Your task to perform on an android device: Play the last video I watched on Youtube Image 0: 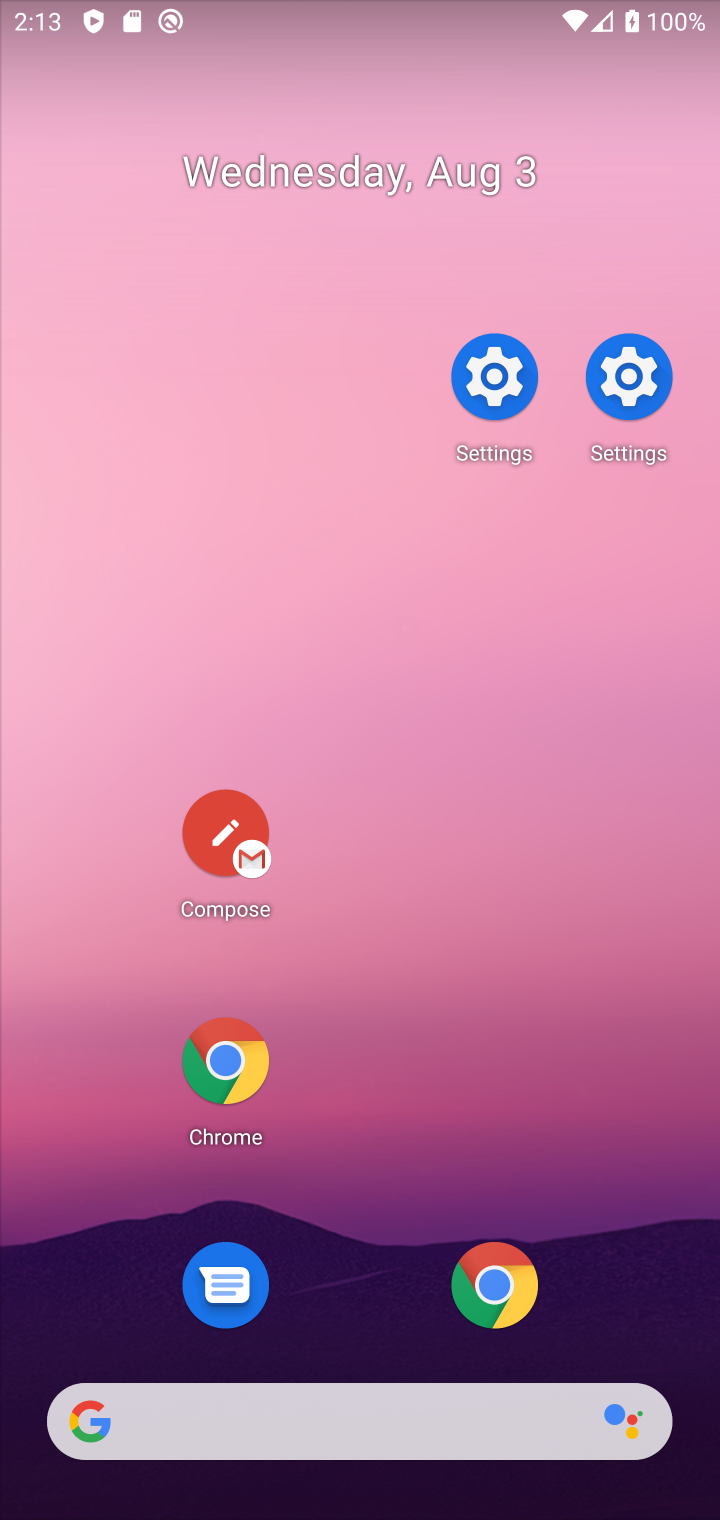
Step 0: drag from (203, 855) to (182, 146)
Your task to perform on an android device: Play the last video I watched on Youtube Image 1: 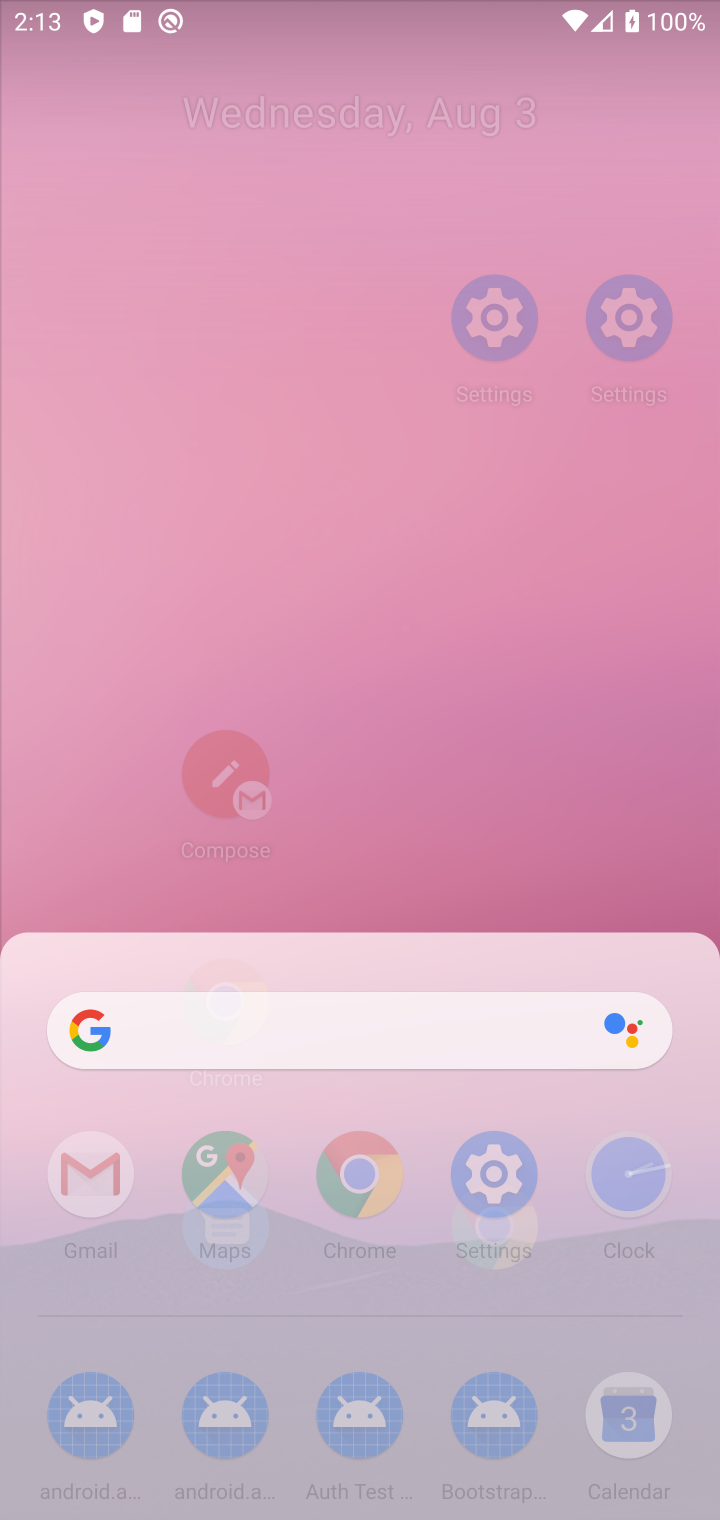
Step 1: click (247, 238)
Your task to perform on an android device: Play the last video I watched on Youtube Image 2: 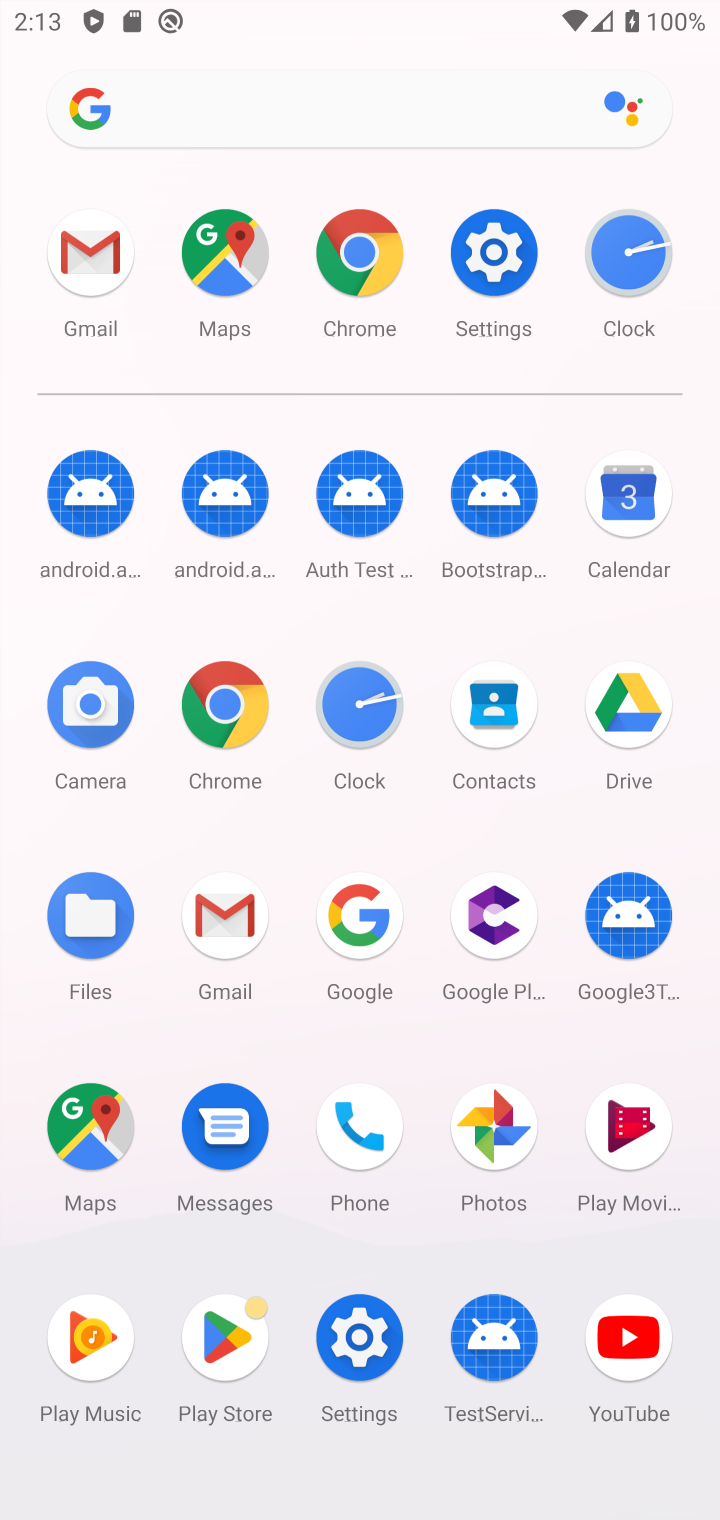
Step 2: drag from (361, 595) to (370, 147)
Your task to perform on an android device: Play the last video I watched on Youtube Image 3: 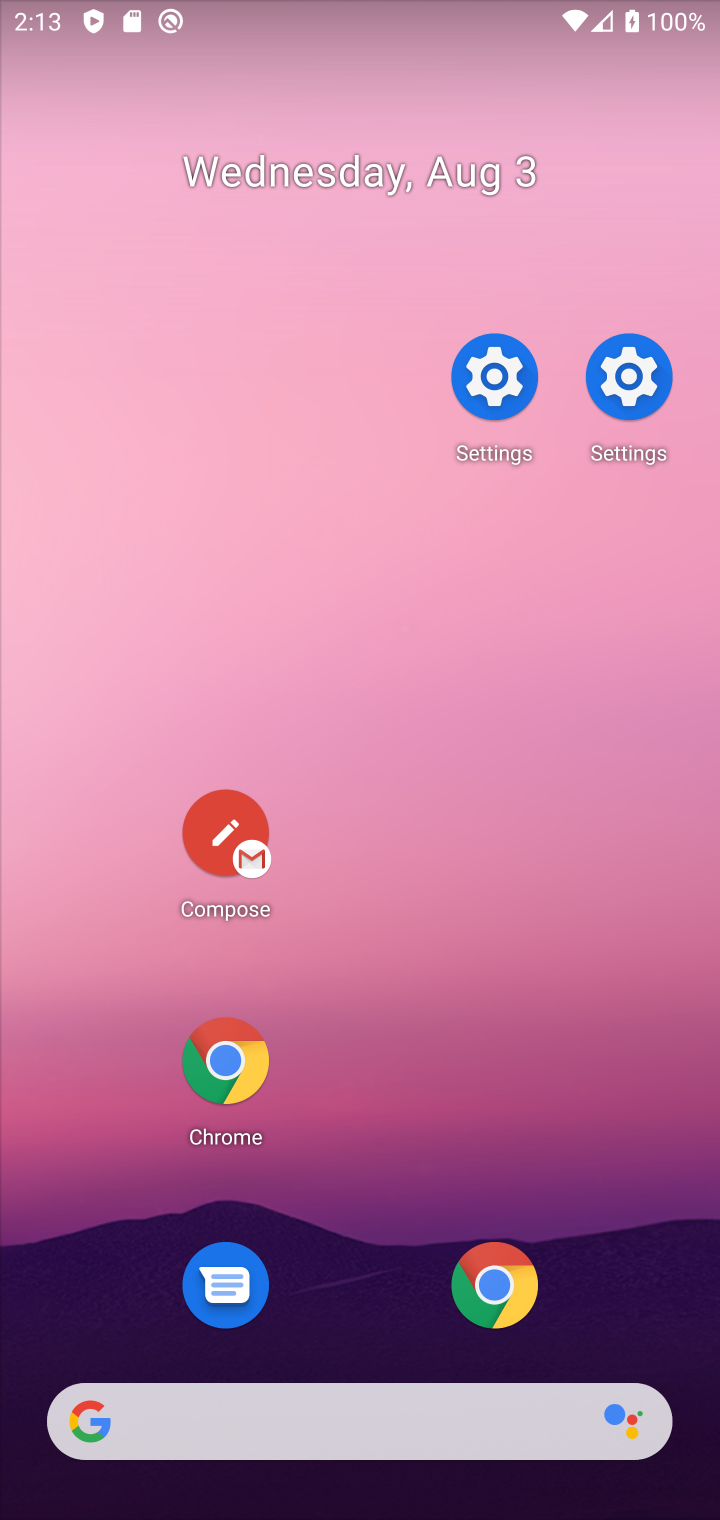
Step 3: drag from (487, 832) to (241, 523)
Your task to perform on an android device: Play the last video I watched on Youtube Image 4: 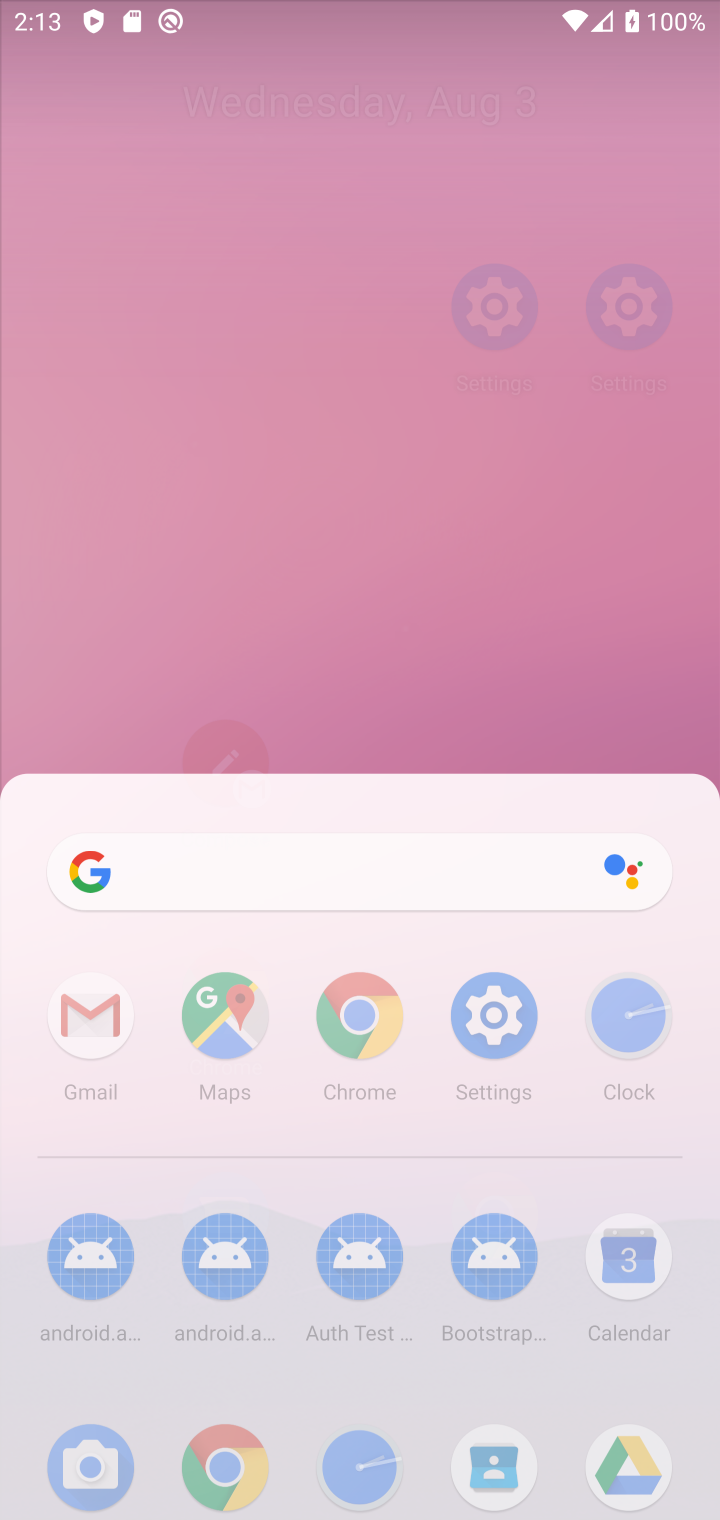
Step 4: drag from (338, 906) to (330, 304)
Your task to perform on an android device: Play the last video I watched on Youtube Image 5: 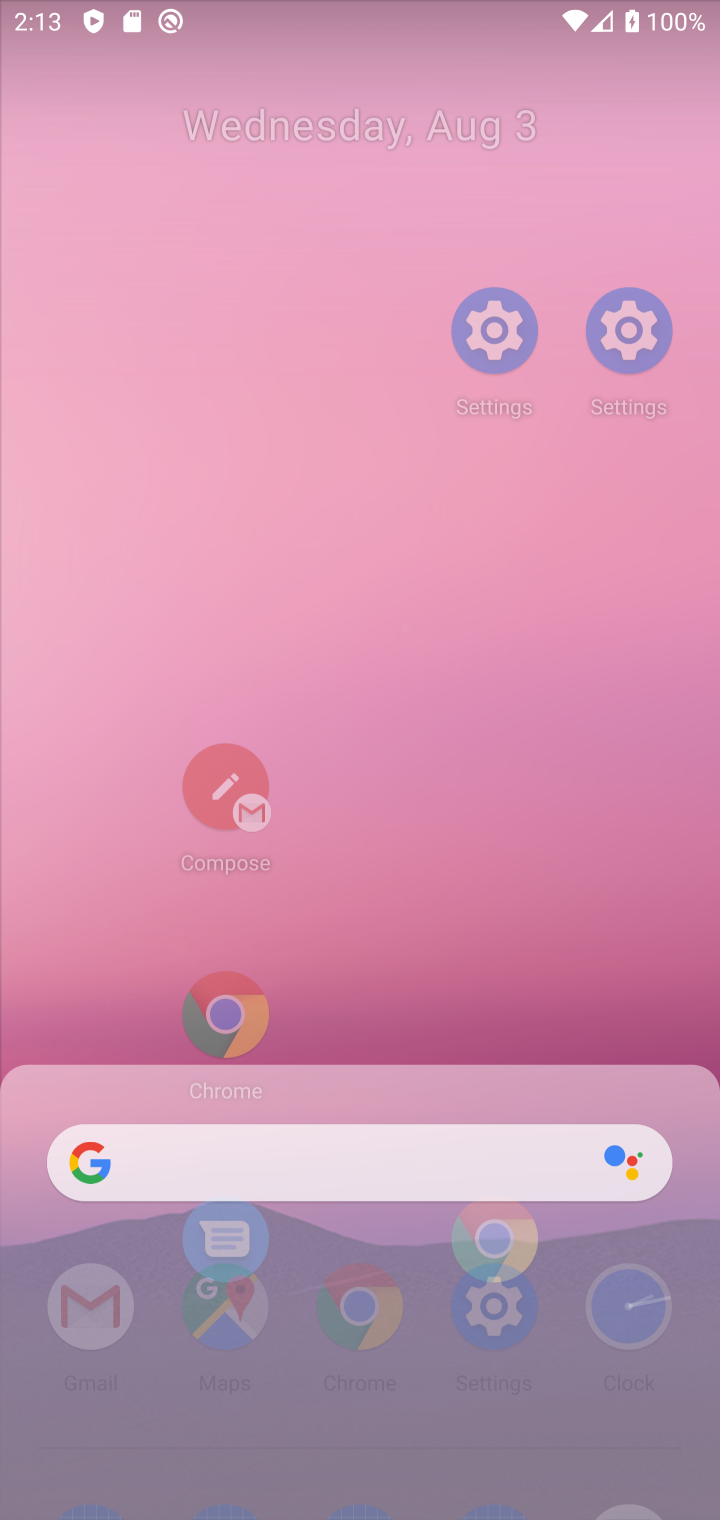
Step 5: click (81, 245)
Your task to perform on an android device: Play the last video I watched on Youtube Image 6: 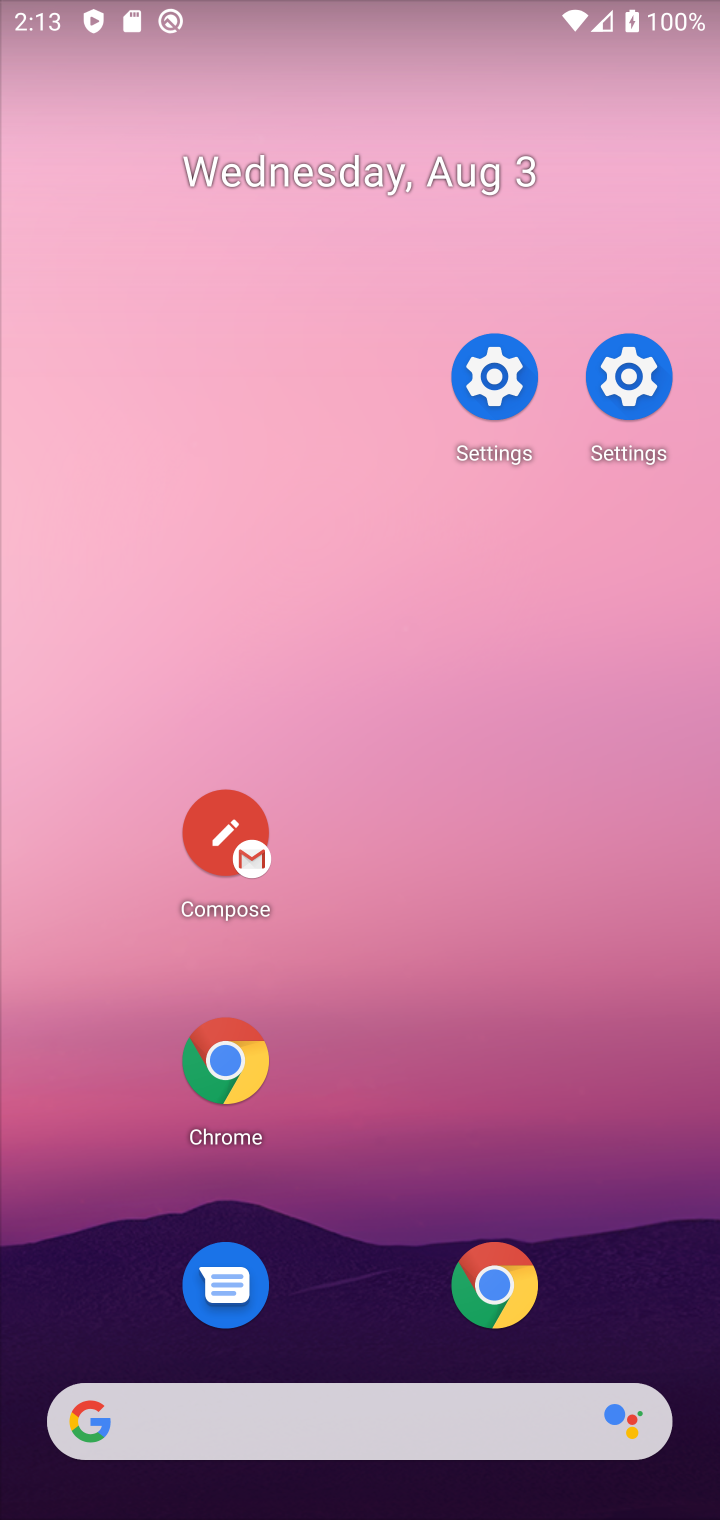
Step 6: drag from (230, 321) to (143, 252)
Your task to perform on an android device: Play the last video I watched on Youtube Image 7: 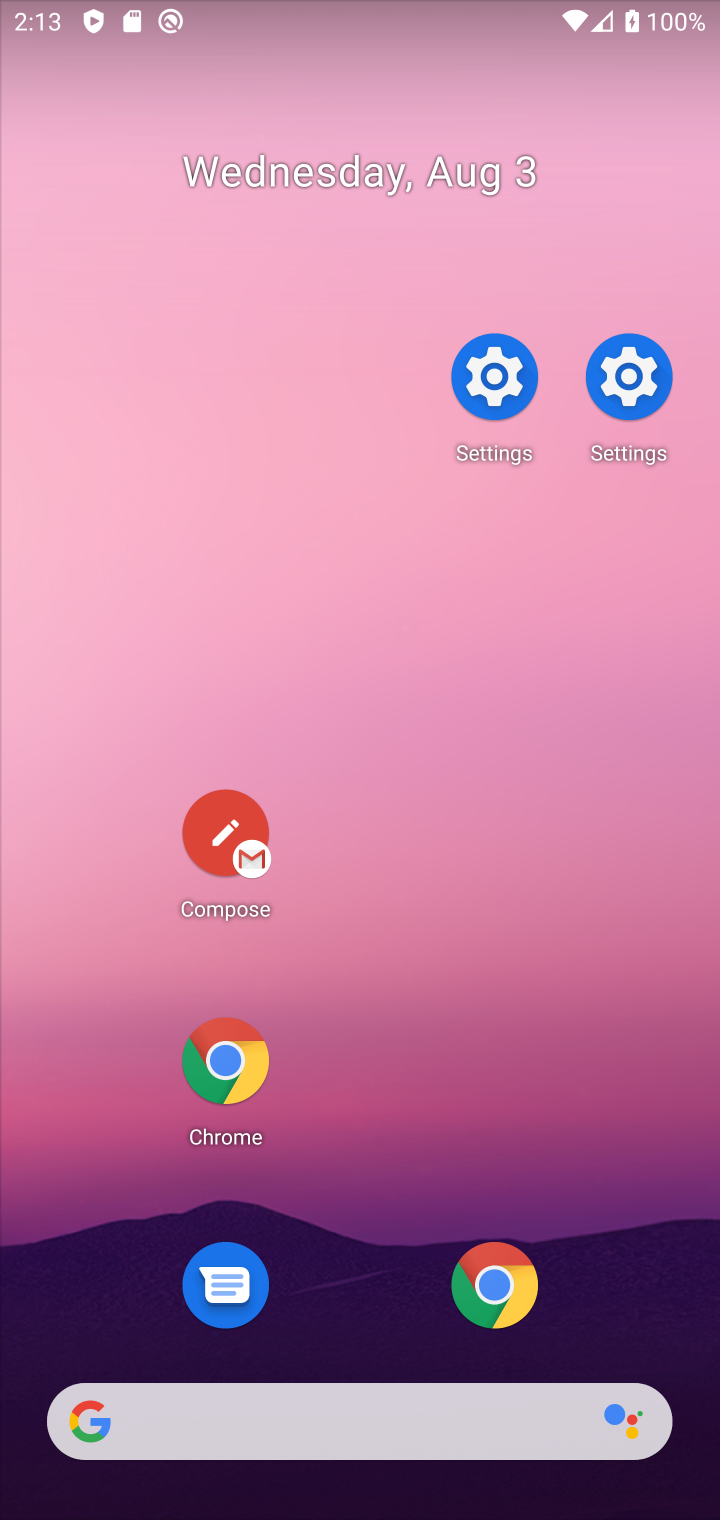
Step 7: drag from (424, 685) to (218, 365)
Your task to perform on an android device: Play the last video I watched on Youtube Image 8: 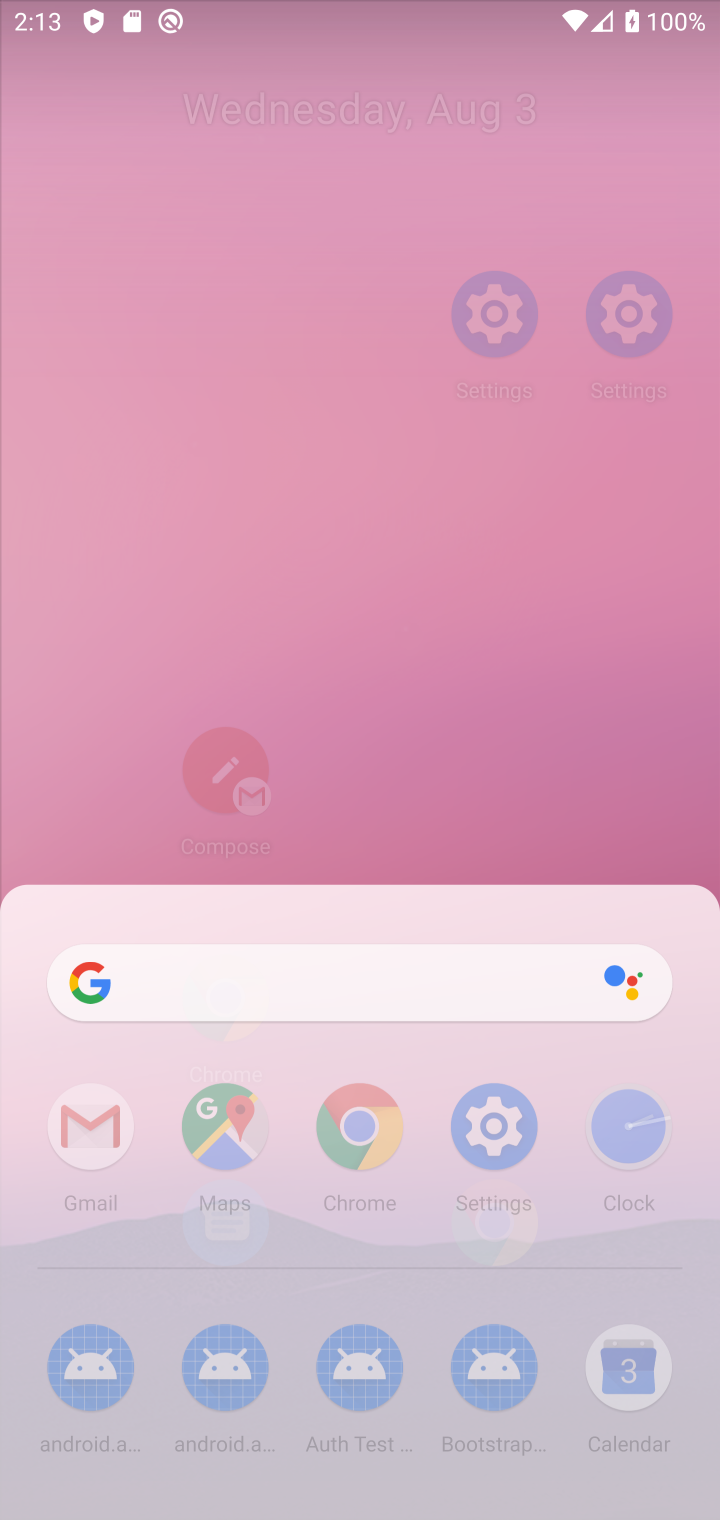
Step 8: click (139, 162)
Your task to perform on an android device: Play the last video I watched on Youtube Image 9: 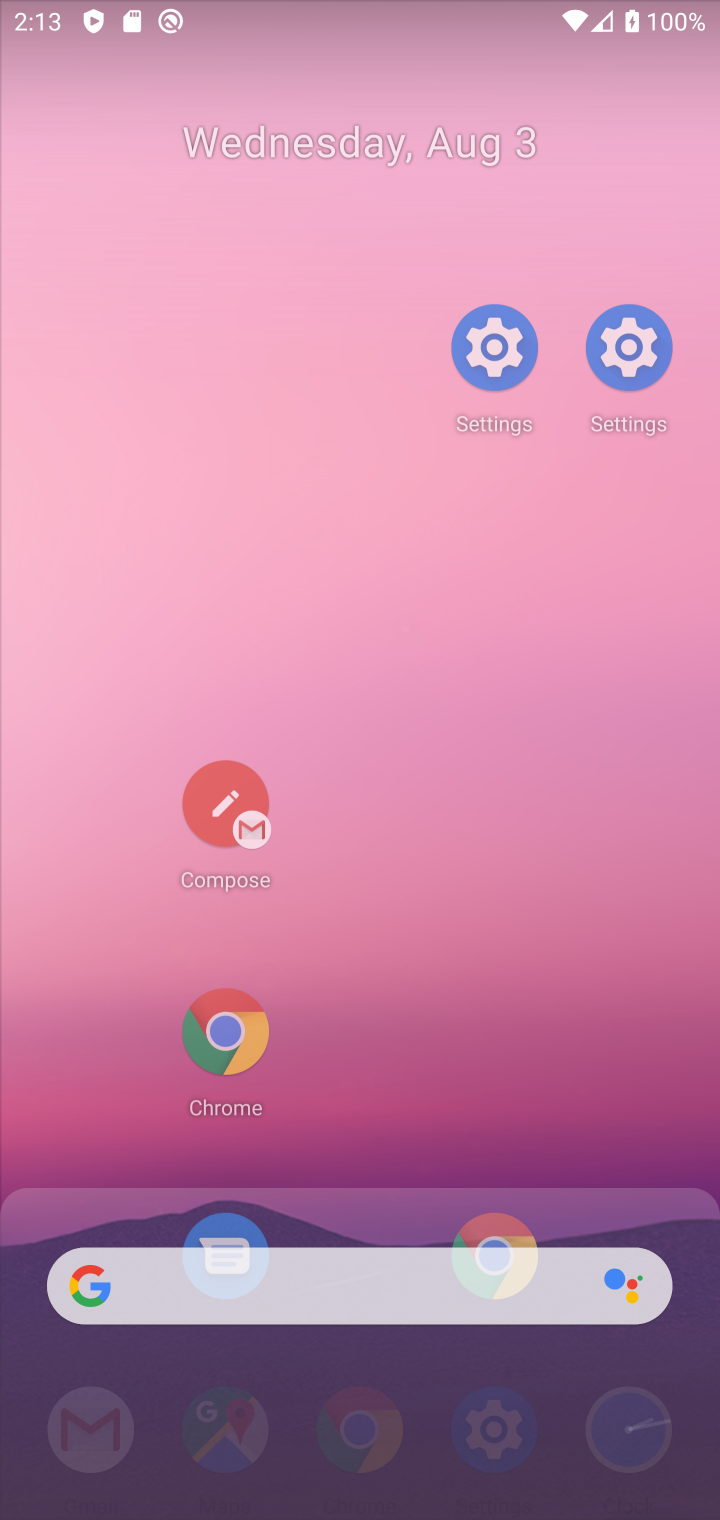
Step 9: click (127, 413)
Your task to perform on an android device: Play the last video I watched on Youtube Image 10: 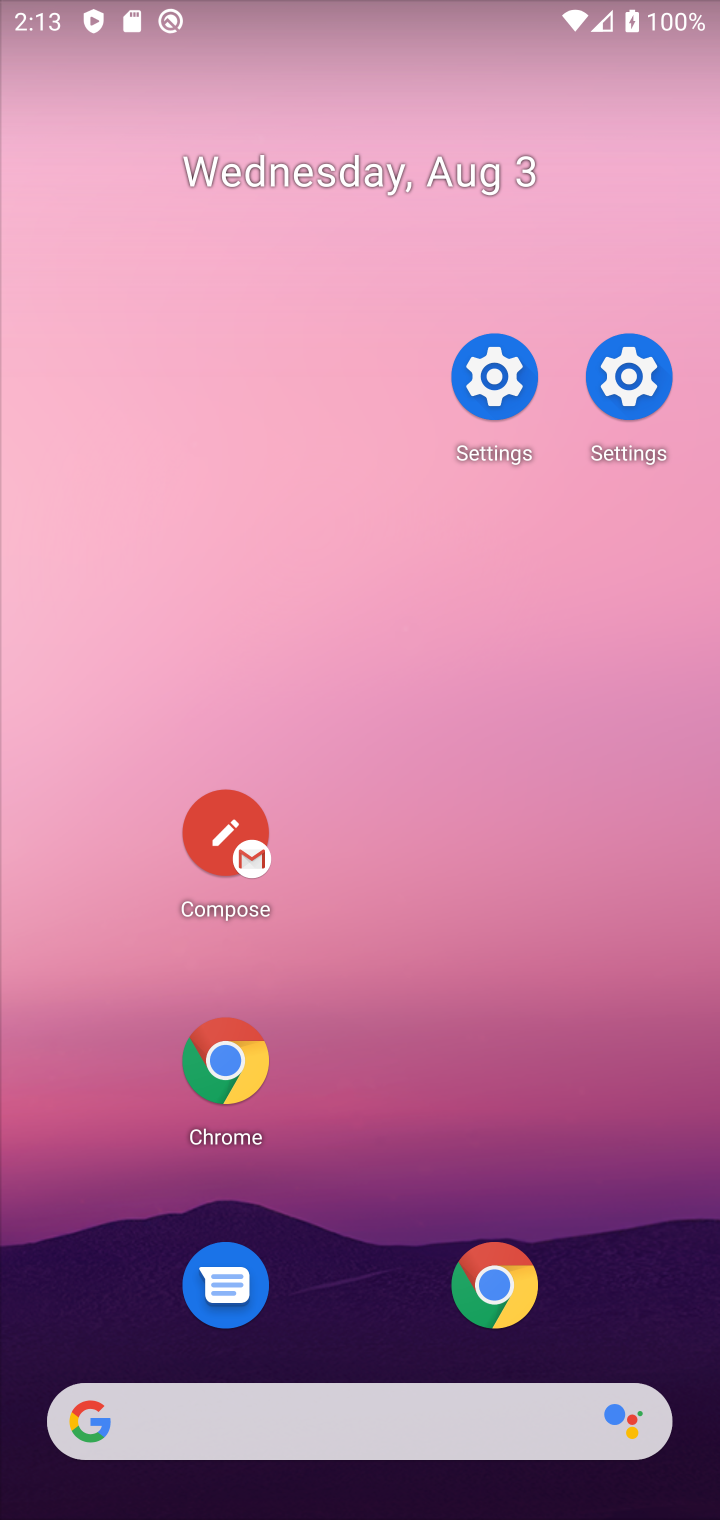
Step 10: drag from (386, 1070) to (247, 504)
Your task to perform on an android device: Play the last video I watched on Youtube Image 11: 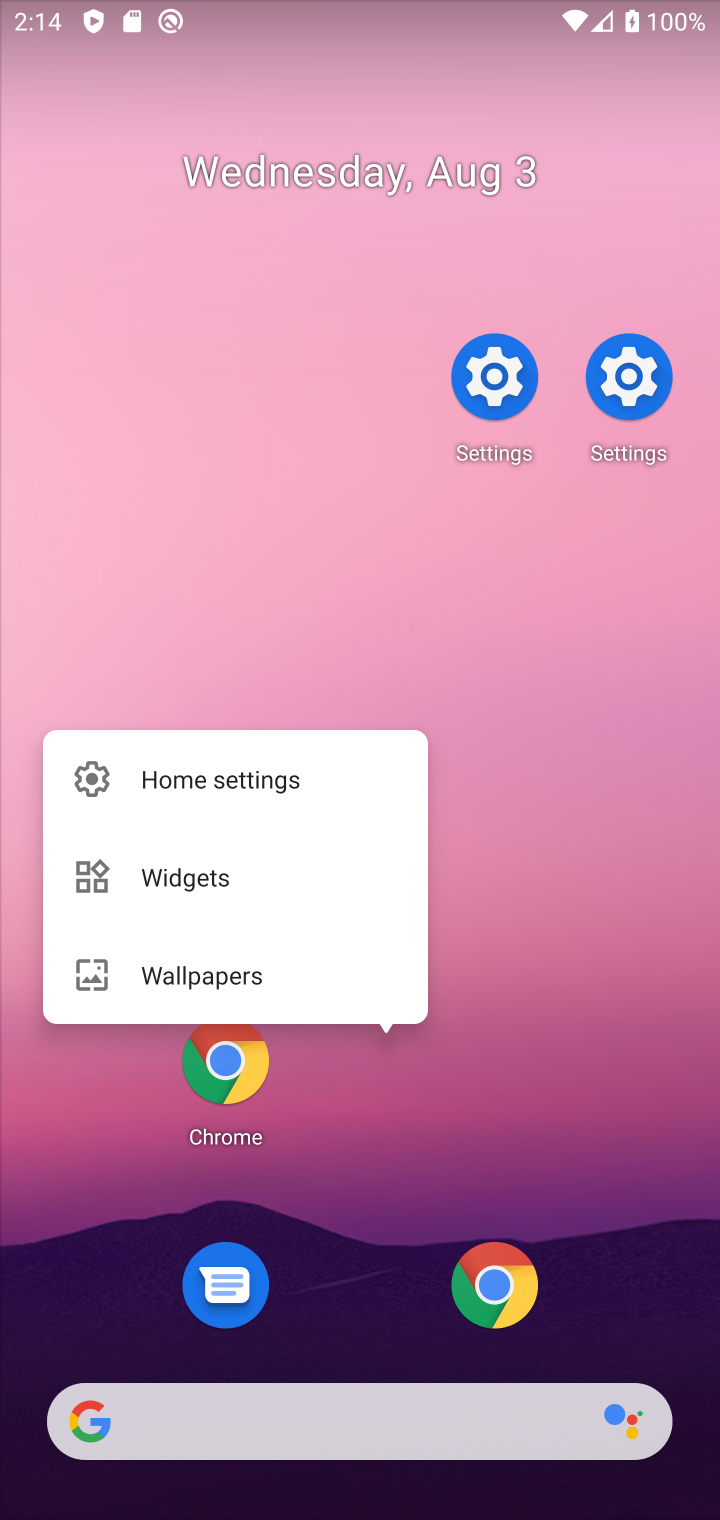
Step 11: drag from (388, 692) to (294, 3)
Your task to perform on an android device: Play the last video I watched on Youtube Image 12: 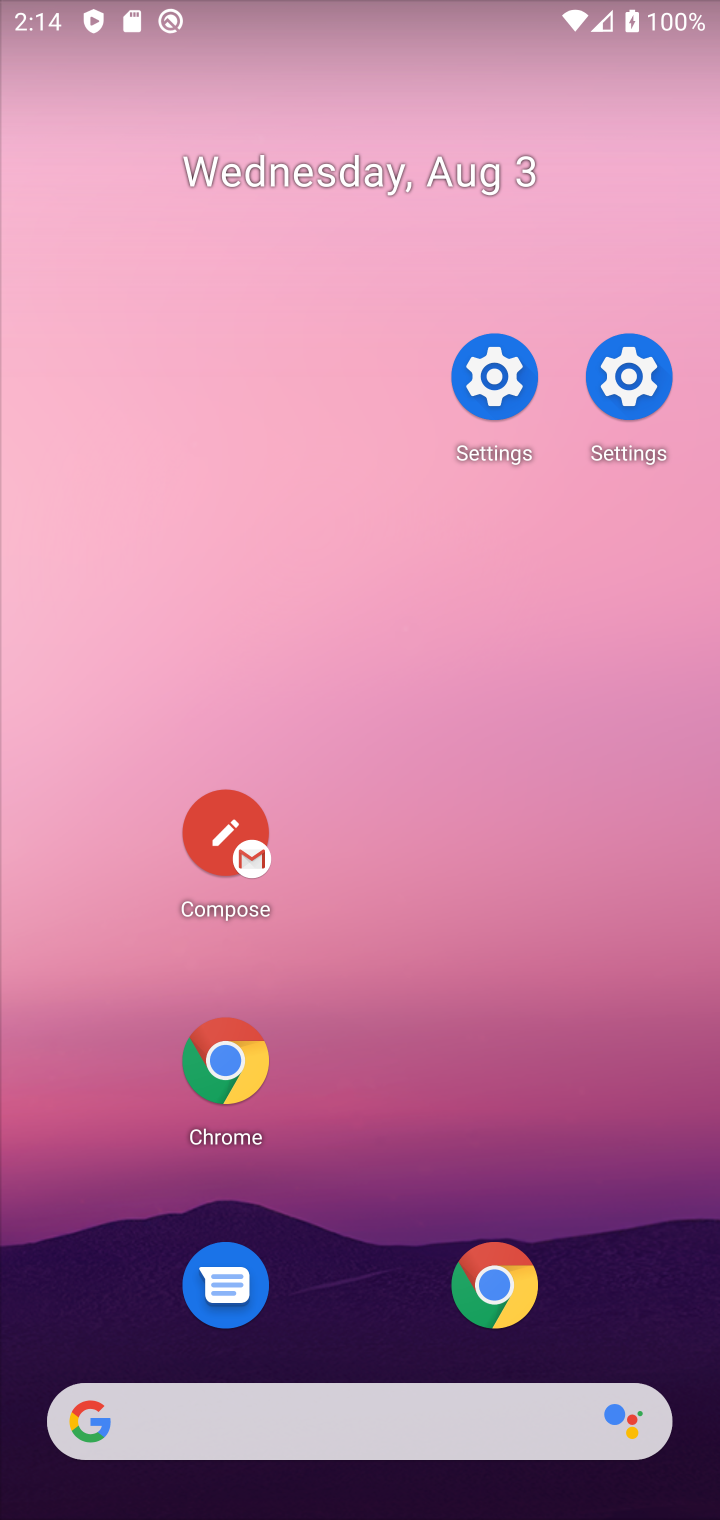
Step 12: drag from (39, 93) to (370, 94)
Your task to perform on an android device: Play the last video I watched on Youtube Image 13: 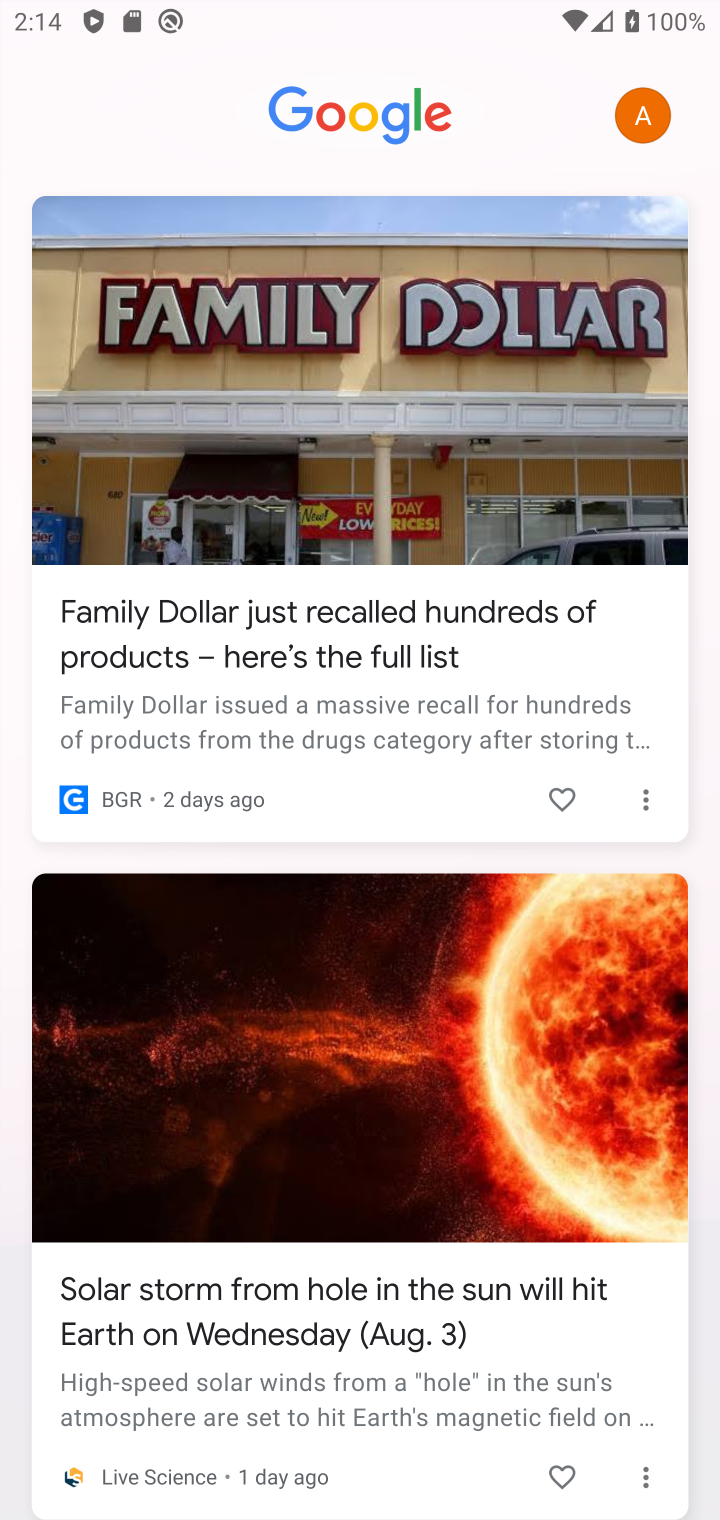
Step 13: drag from (207, 366) to (289, 385)
Your task to perform on an android device: Play the last video I watched on Youtube Image 14: 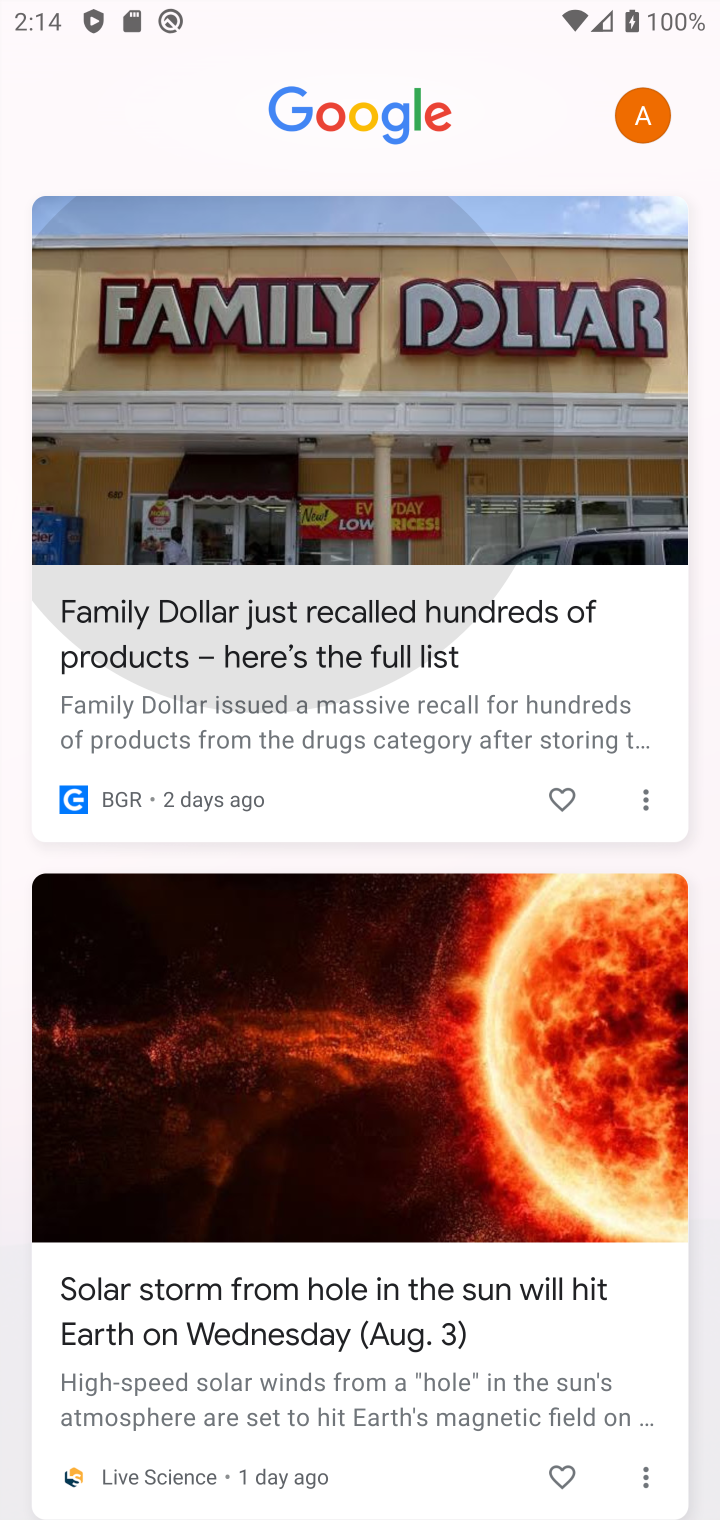
Step 14: drag from (163, 981) to (302, 954)
Your task to perform on an android device: Play the last video I watched on Youtube Image 15: 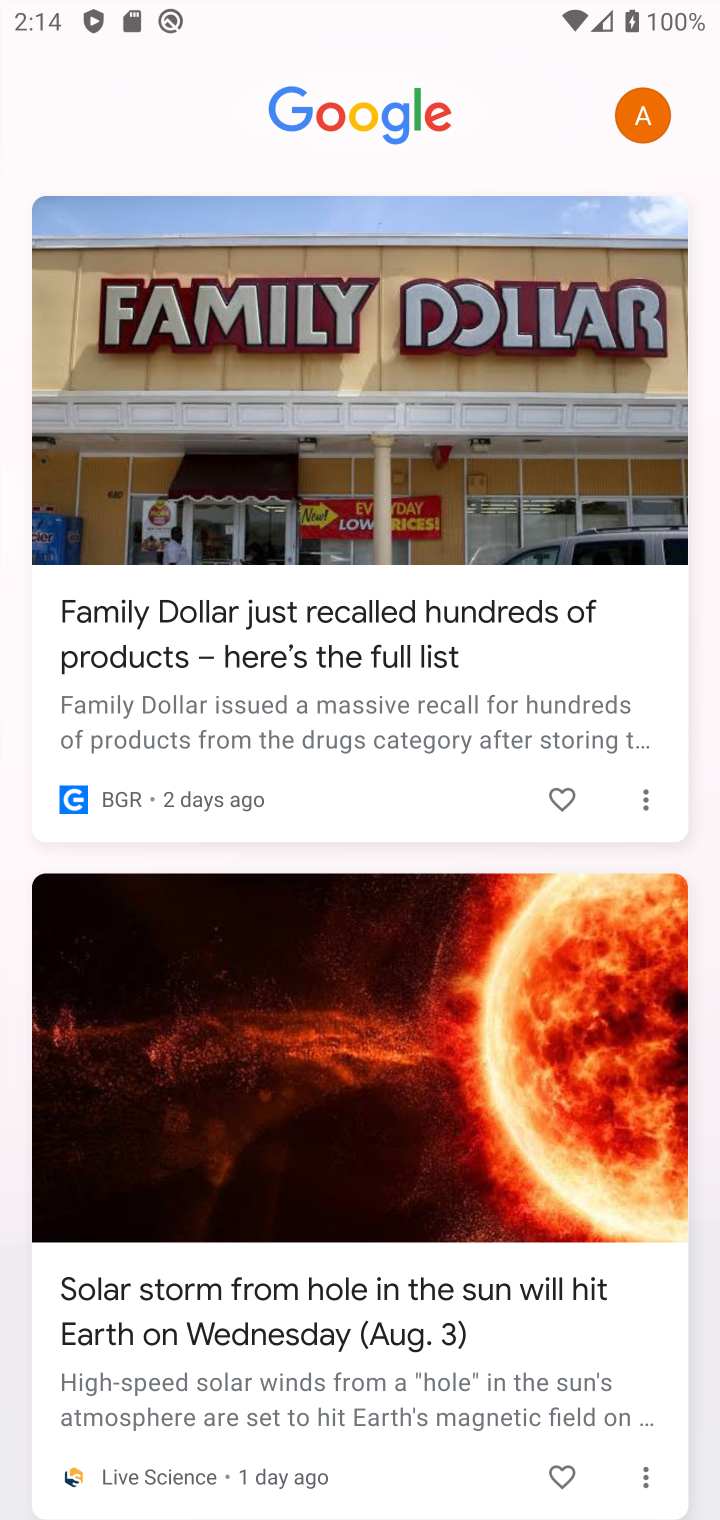
Step 15: drag from (6, 1031) to (82, 950)
Your task to perform on an android device: Play the last video I watched on Youtube Image 16: 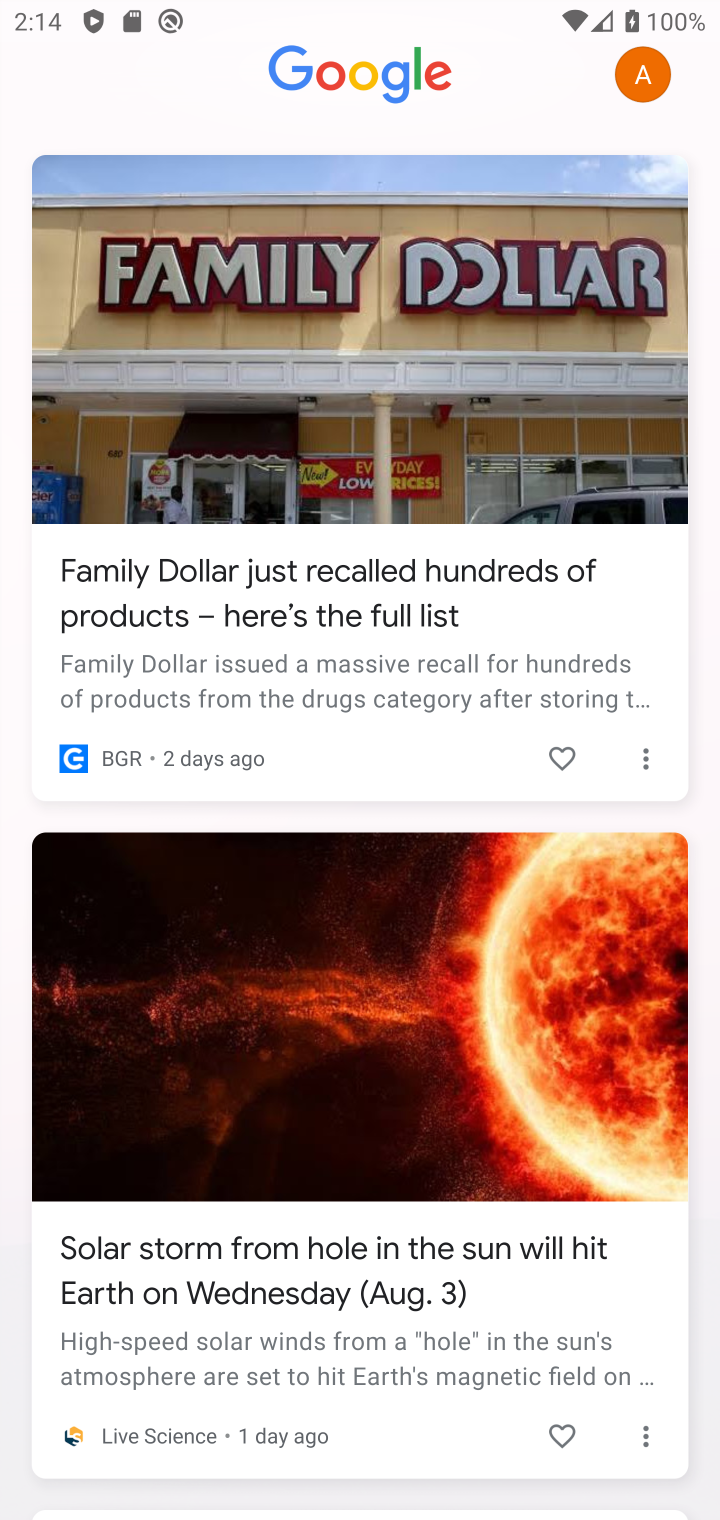
Step 16: click (7, 947)
Your task to perform on an android device: Play the last video I watched on Youtube Image 17: 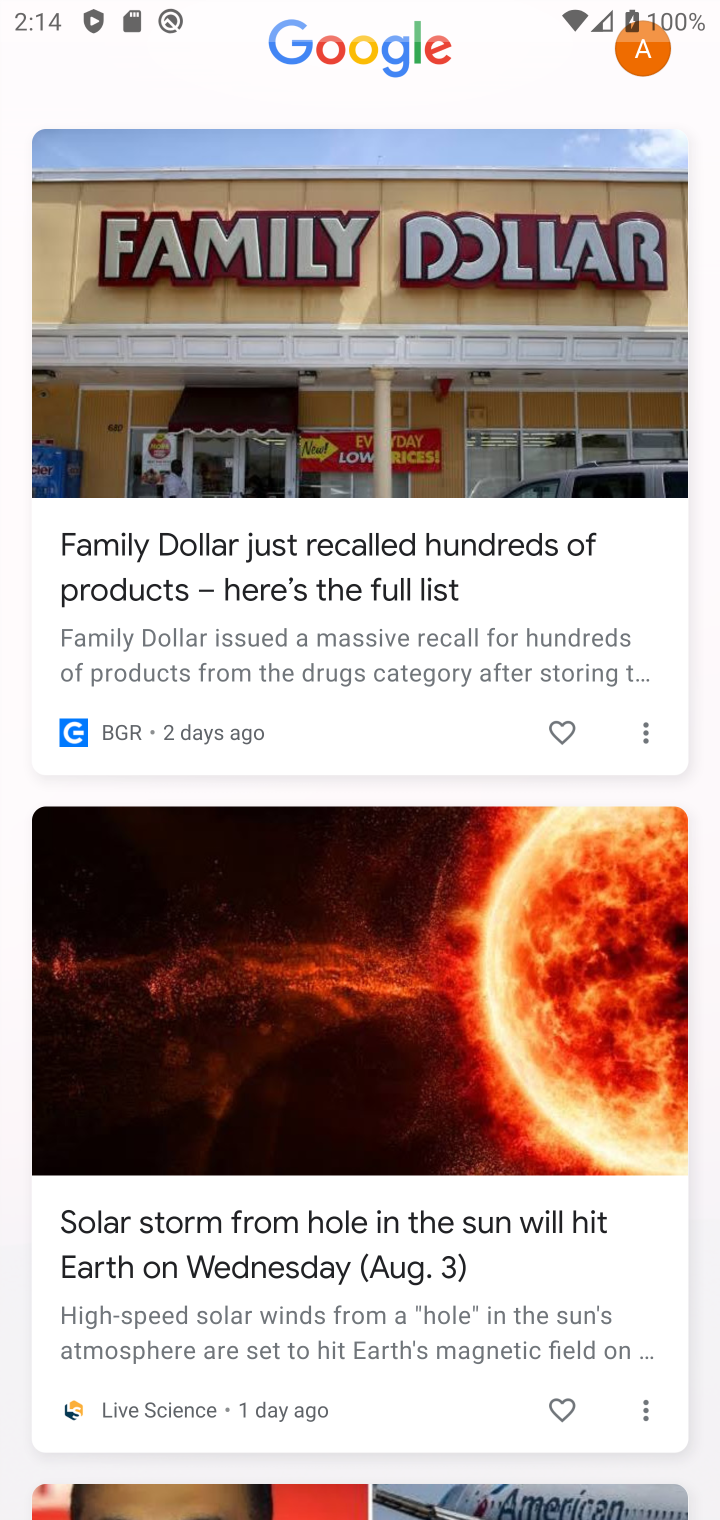
Step 17: press back button
Your task to perform on an android device: Play the last video I watched on Youtube Image 18: 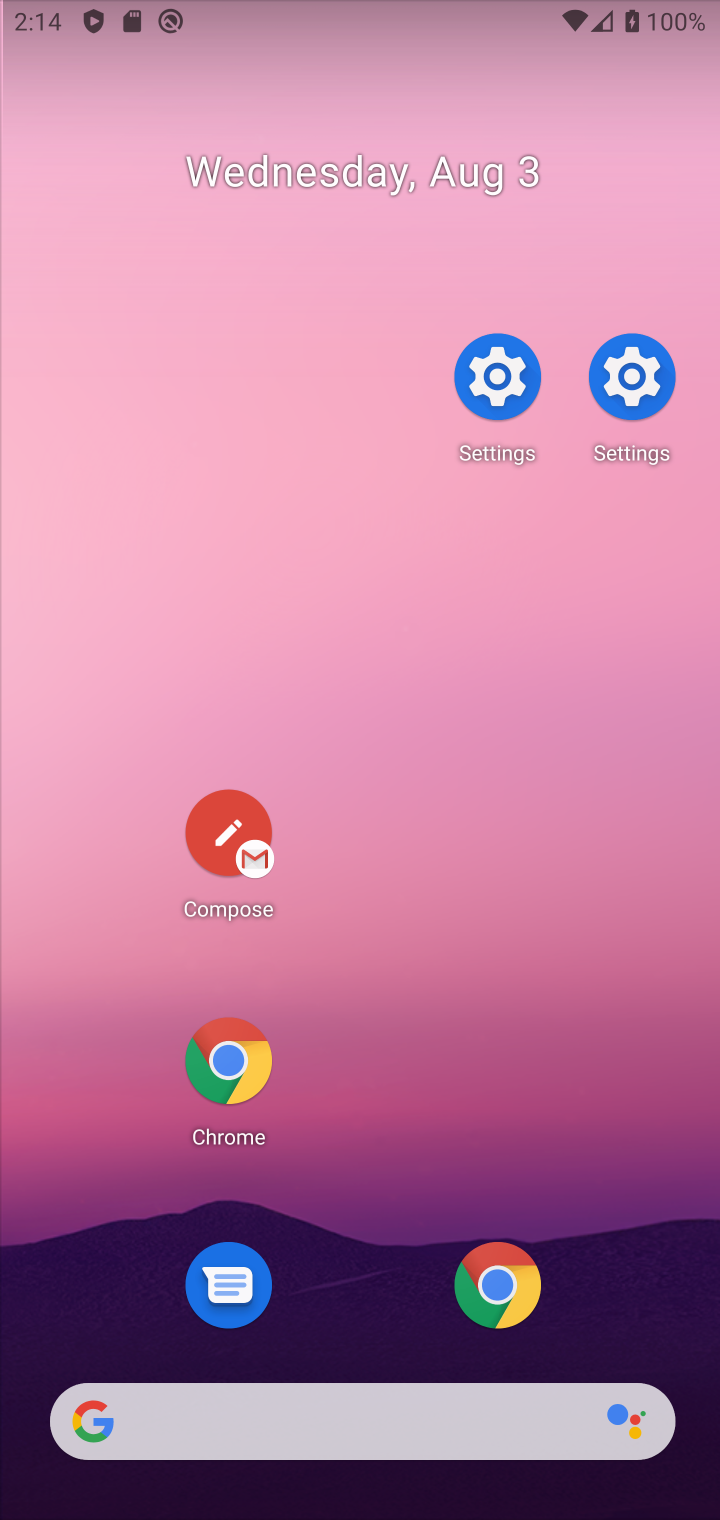
Step 18: drag from (403, 561) to (325, 664)
Your task to perform on an android device: Play the last video I watched on Youtube Image 19: 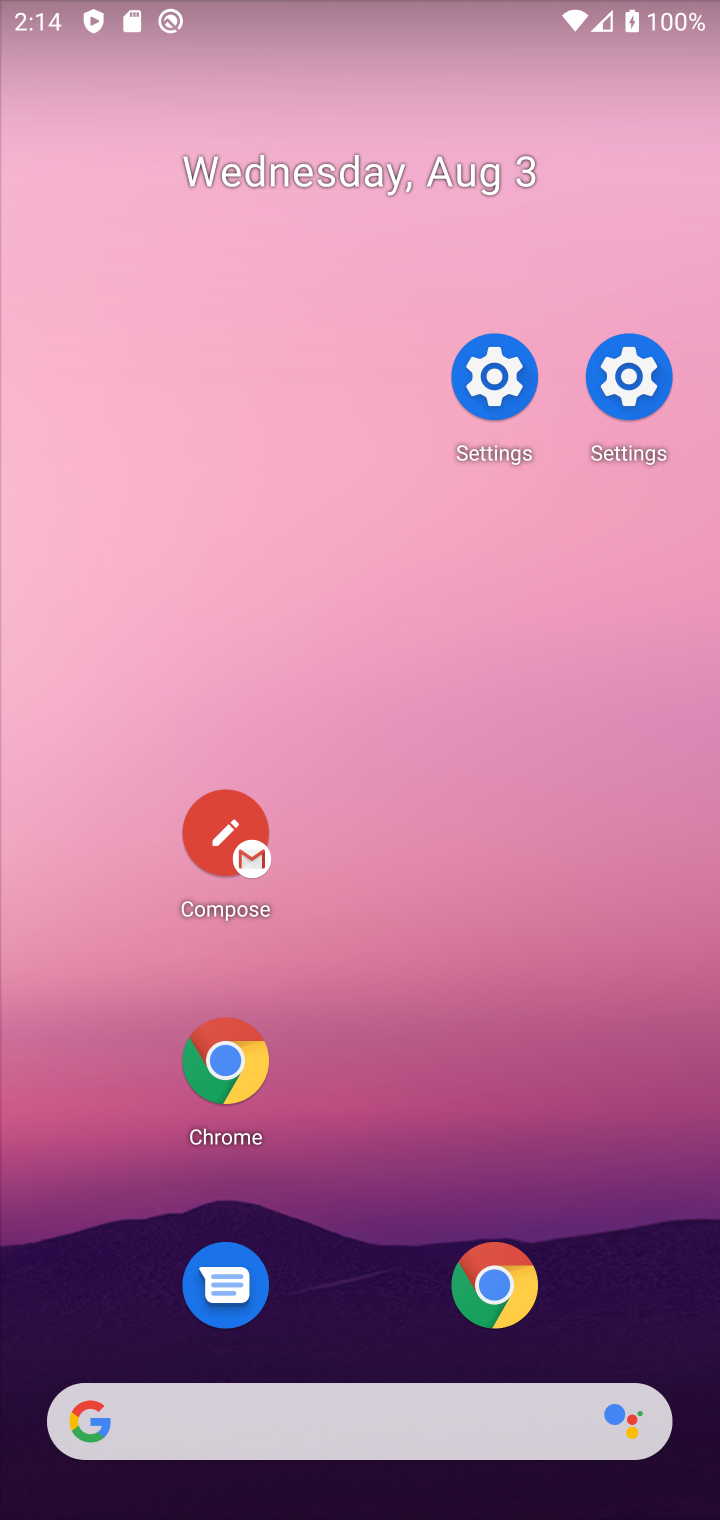
Step 19: drag from (370, 1325) to (410, 389)
Your task to perform on an android device: Play the last video I watched on Youtube Image 20: 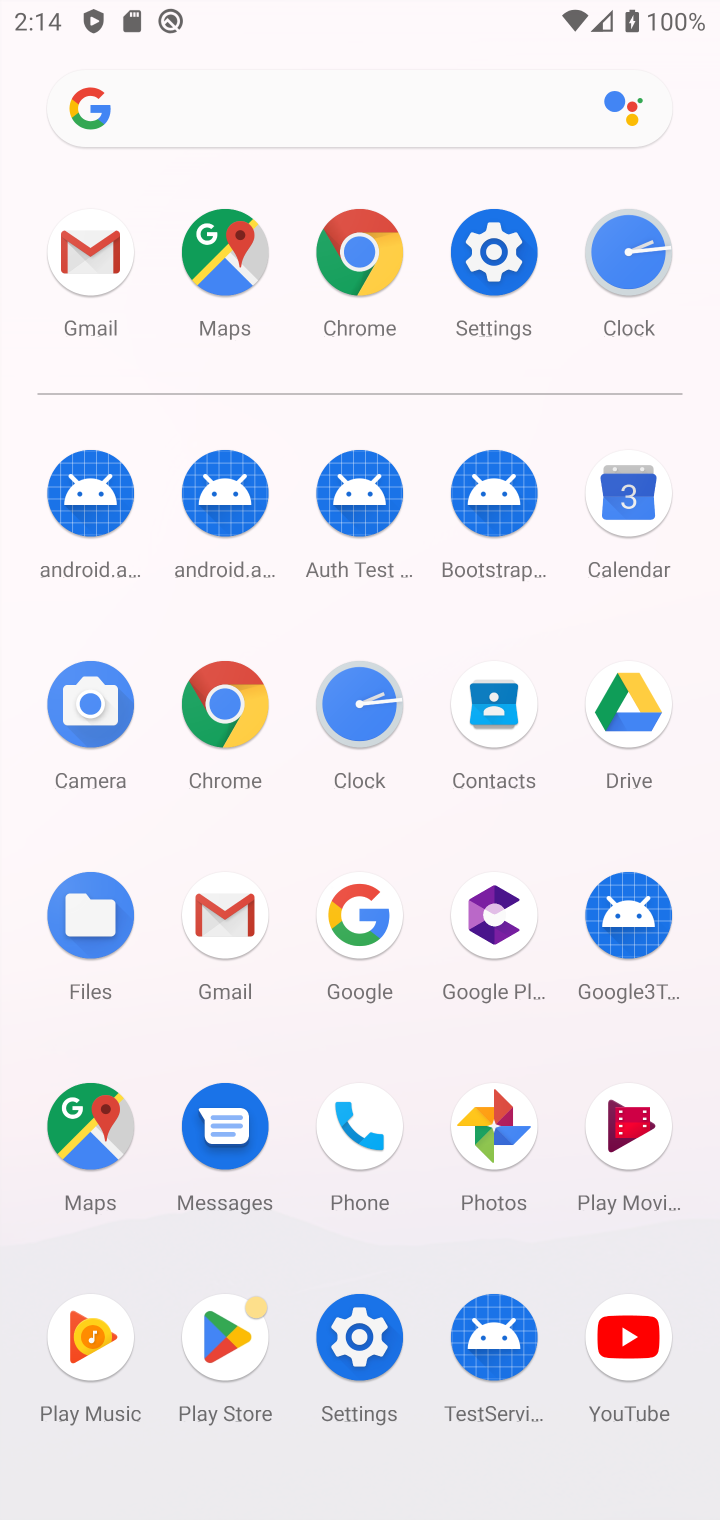
Step 20: click (609, 1338)
Your task to perform on an android device: Play the last video I watched on Youtube Image 21: 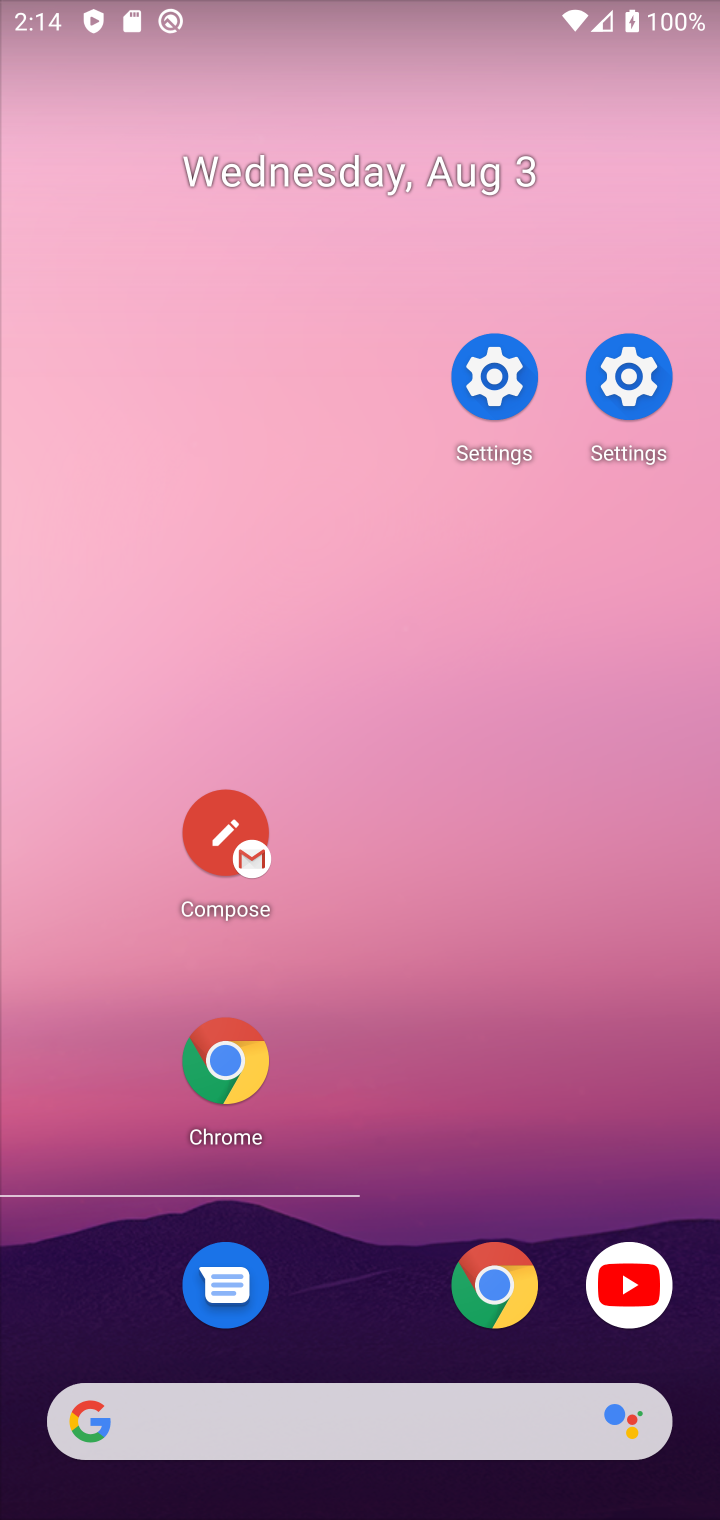
Step 21: click (644, 1340)
Your task to perform on an android device: Play the last video I watched on Youtube Image 22: 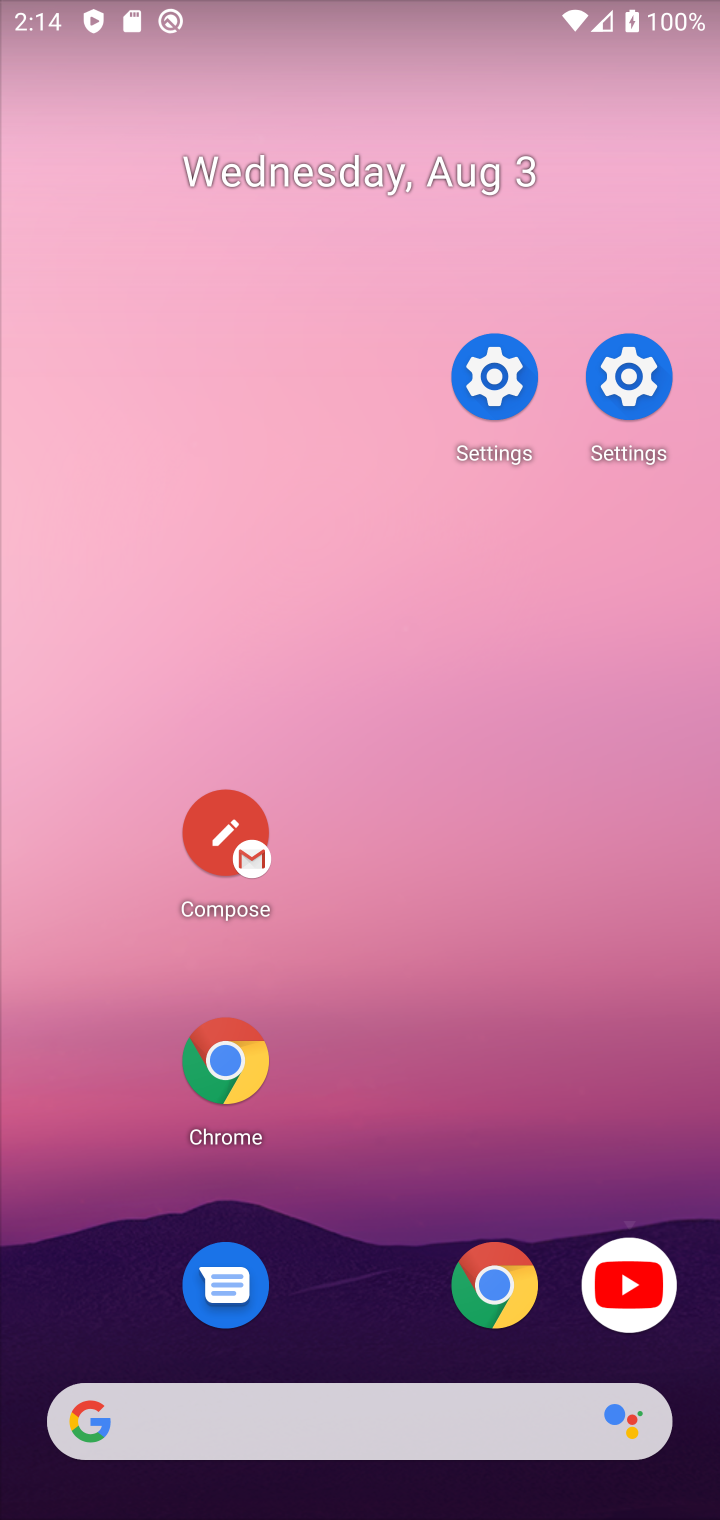
Step 22: click (615, 1287)
Your task to perform on an android device: Play the last video I watched on Youtube Image 23: 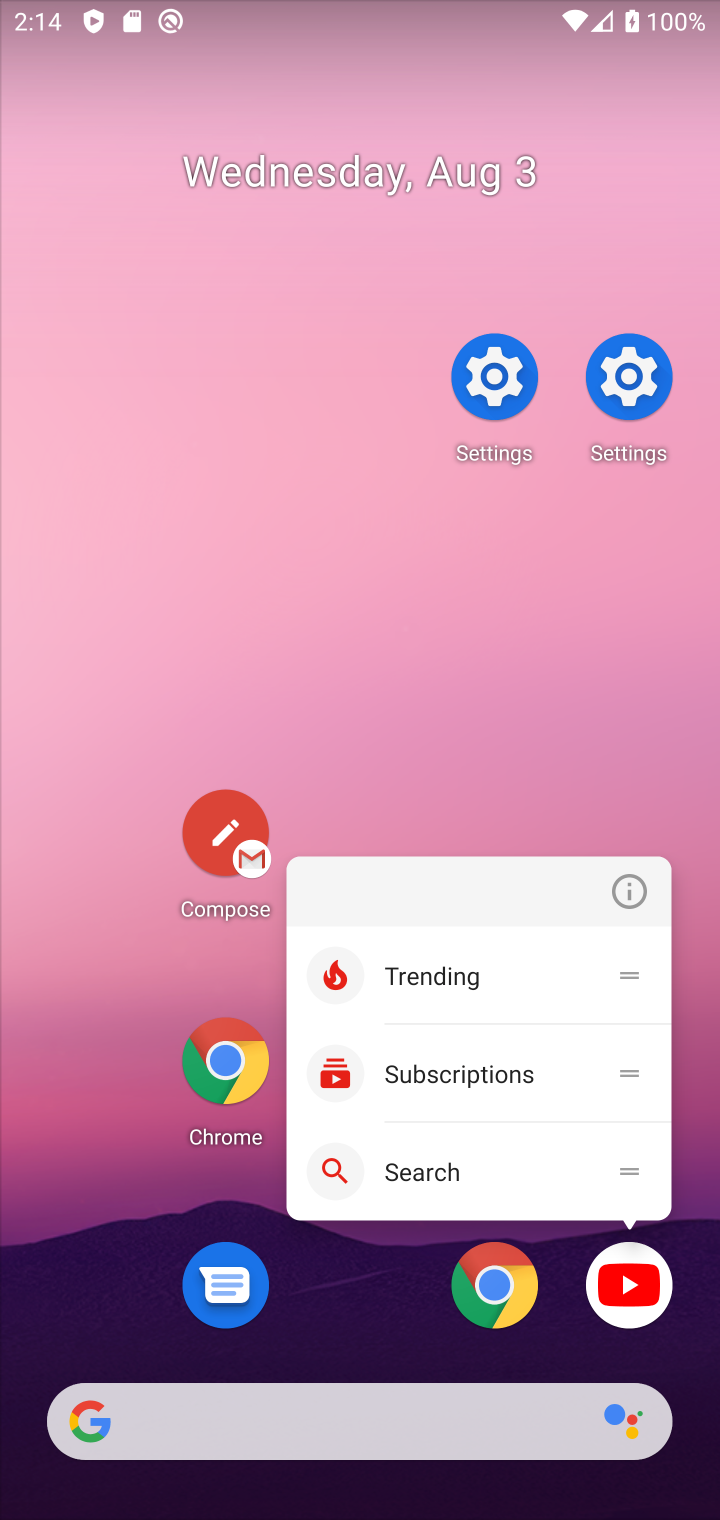
Step 23: click (627, 1284)
Your task to perform on an android device: Play the last video I watched on Youtube Image 24: 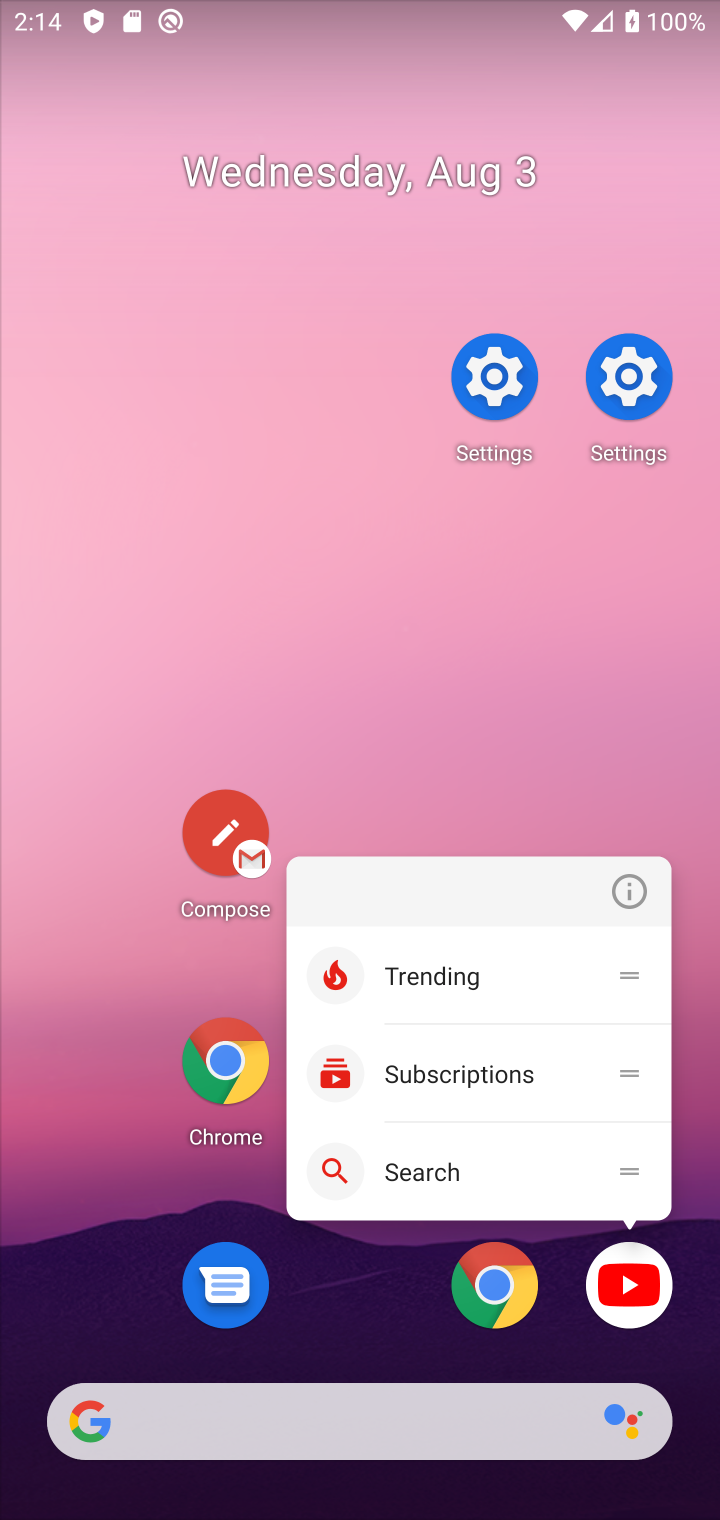
Step 24: task complete